Your task to perform on an android device: toggle improve location accuracy Image 0: 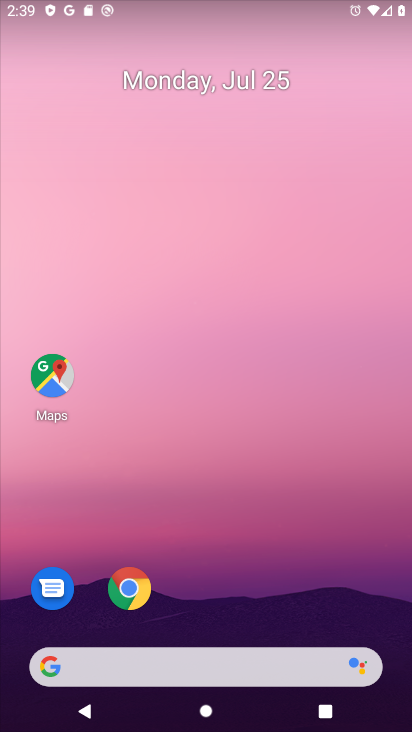
Step 0: press home button
Your task to perform on an android device: toggle improve location accuracy Image 1: 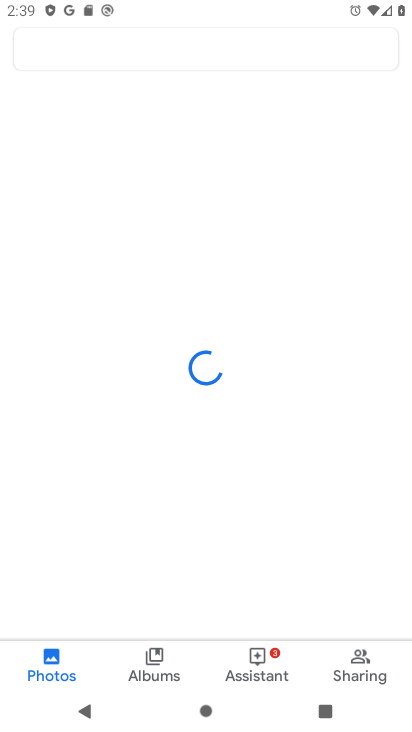
Step 1: drag from (184, 308) to (406, 385)
Your task to perform on an android device: toggle improve location accuracy Image 2: 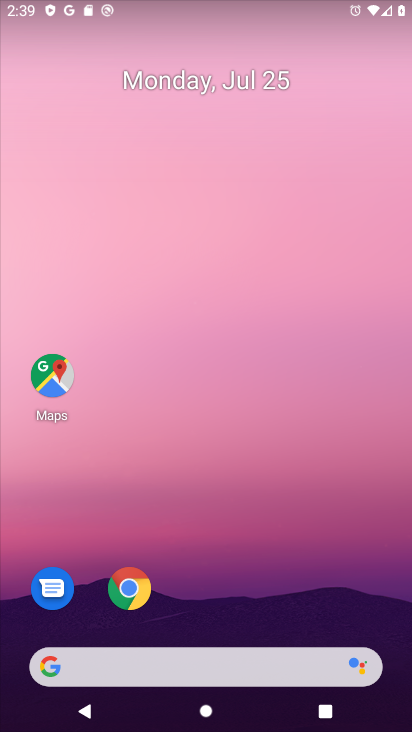
Step 2: drag from (215, 630) to (212, 22)
Your task to perform on an android device: toggle improve location accuracy Image 3: 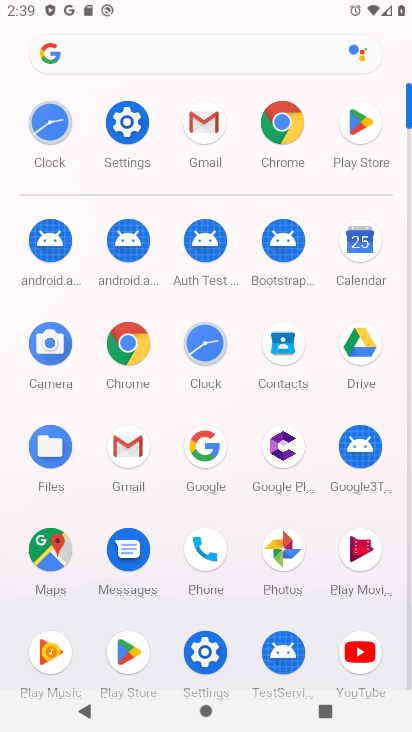
Step 3: click (125, 119)
Your task to perform on an android device: toggle improve location accuracy Image 4: 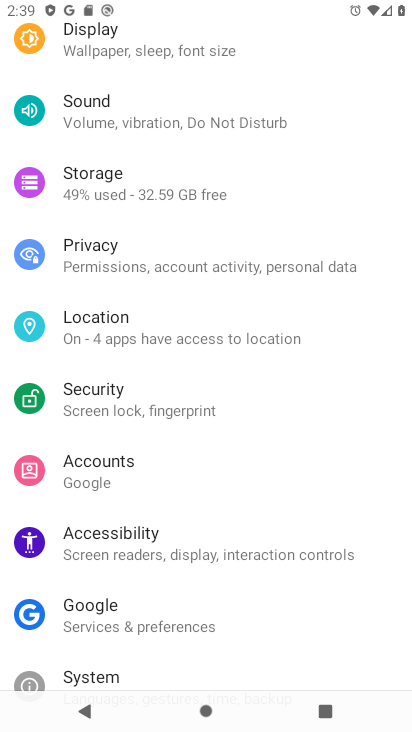
Step 4: click (131, 326)
Your task to perform on an android device: toggle improve location accuracy Image 5: 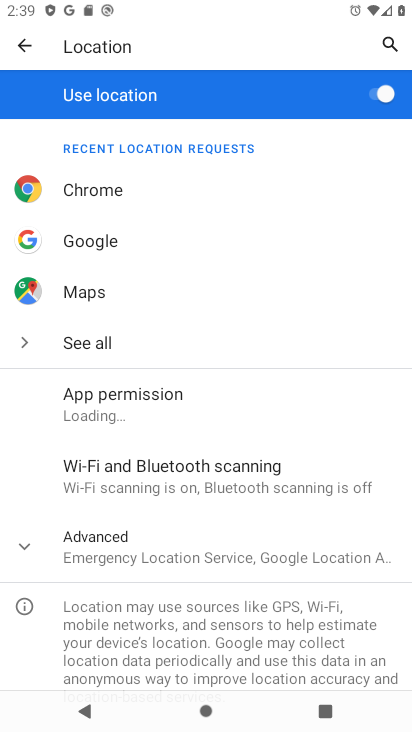
Step 5: click (32, 548)
Your task to perform on an android device: toggle improve location accuracy Image 6: 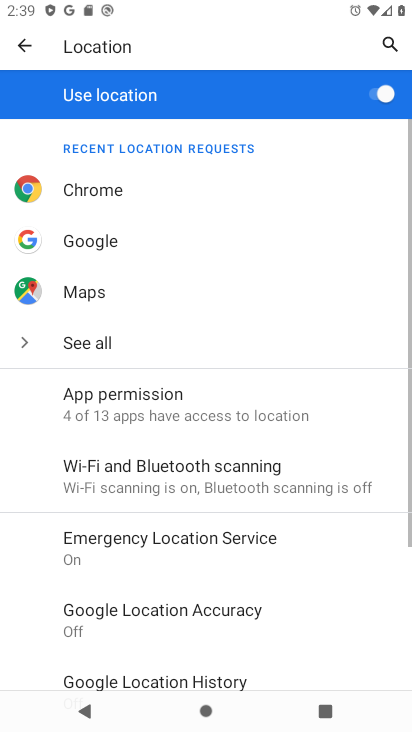
Step 6: click (103, 620)
Your task to perform on an android device: toggle improve location accuracy Image 7: 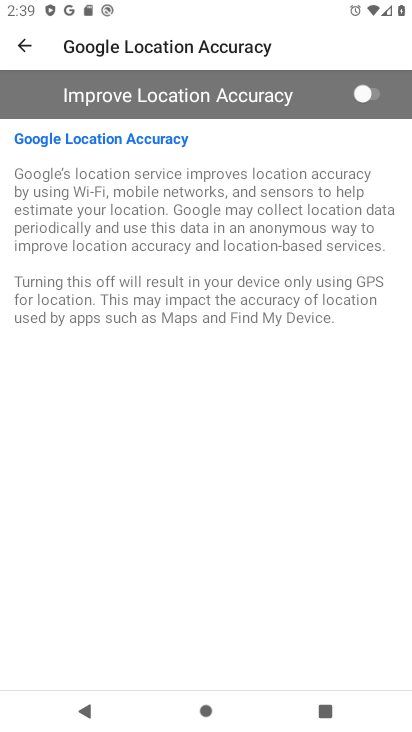
Step 7: click (365, 96)
Your task to perform on an android device: toggle improve location accuracy Image 8: 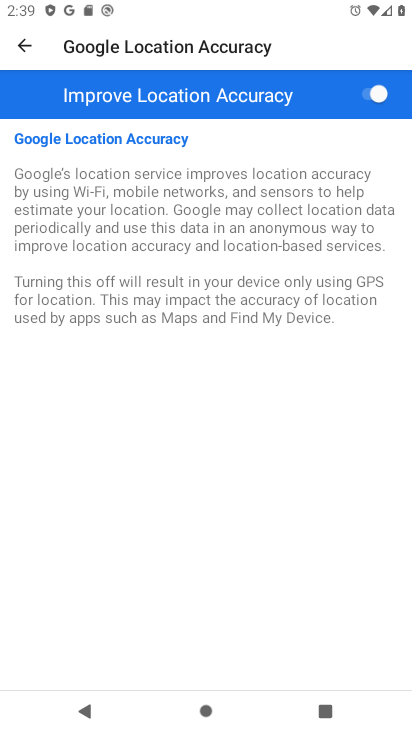
Step 8: task complete